Your task to perform on an android device: Clear the shopping cart on newegg.com. Image 0: 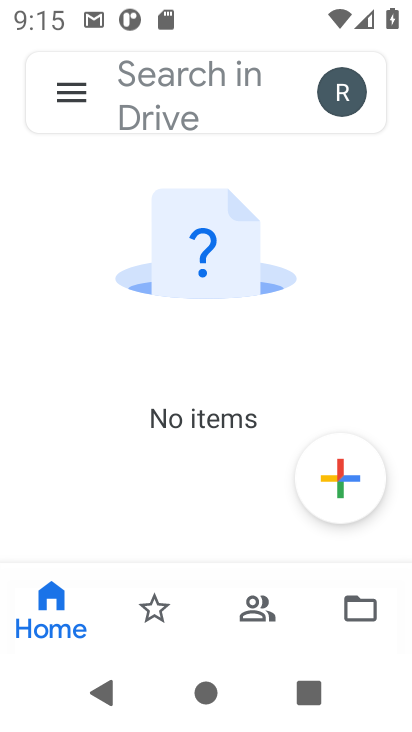
Step 0: press home button
Your task to perform on an android device: Clear the shopping cart on newegg.com. Image 1: 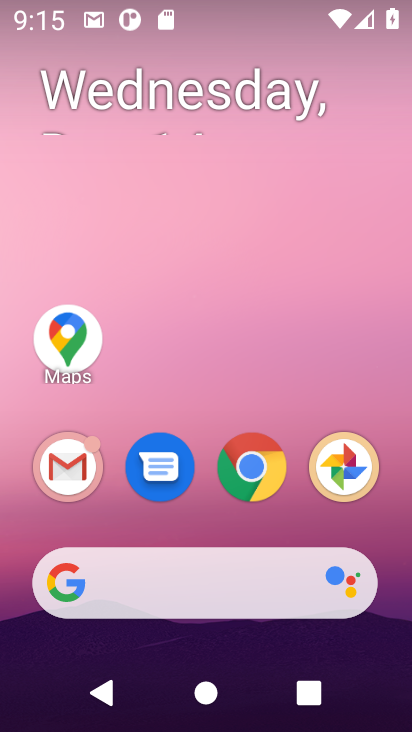
Step 1: click (249, 482)
Your task to perform on an android device: Clear the shopping cart on newegg.com. Image 2: 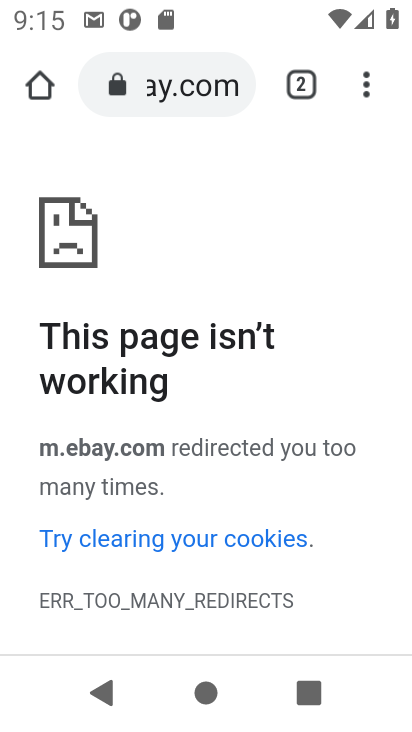
Step 2: click (221, 102)
Your task to perform on an android device: Clear the shopping cart on newegg.com. Image 3: 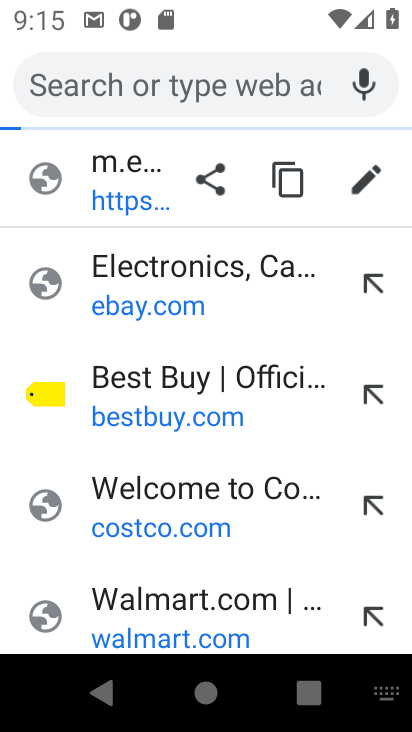
Step 3: type "neweegg"
Your task to perform on an android device: Clear the shopping cart on newegg.com. Image 4: 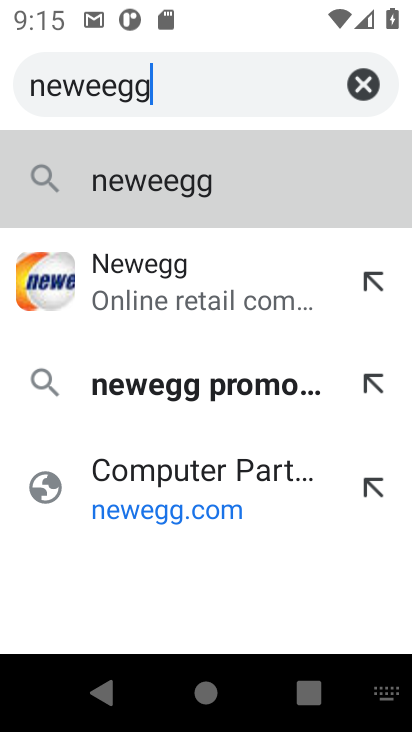
Step 4: click (199, 327)
Your task to perform on an android device: Clear the shopping cart on newegg.com. Image 5: 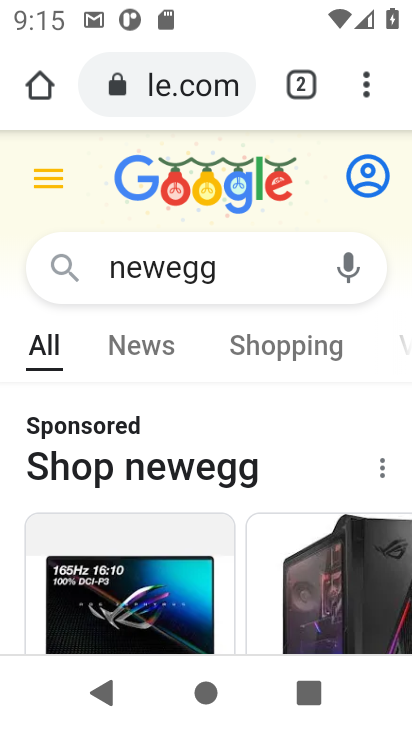
Step 5: drag from (213, 553) to (199, 270)
Your task to perform on an android device: Clear the shopping cart on newegg.com. Image 6: 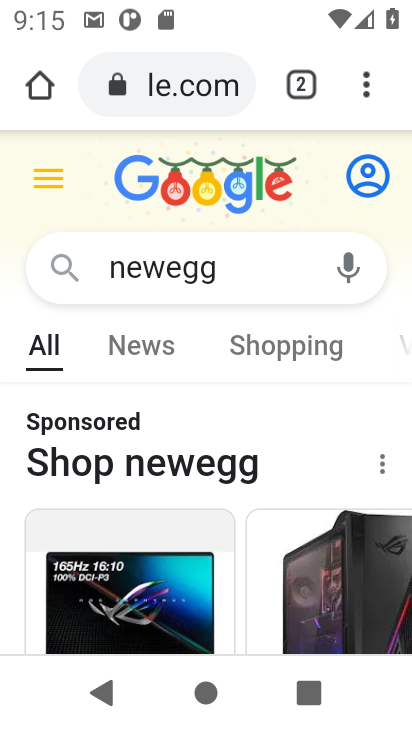
Step 6: drag from (234, 584) to (229, 142)
Your task to perform on an android device: Clear the shopping cart on newegg.com. Image 7: 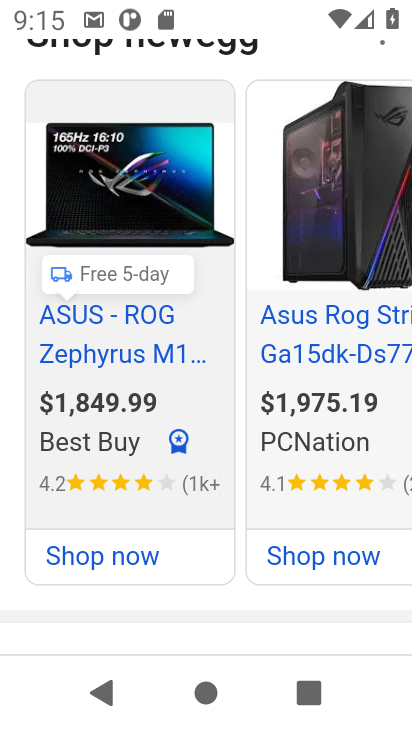
Step 7: drag from (236, 593) to (184, 134)
Your task to perform on an android device: Clear the shopping cart on newegg.com. Image 8: 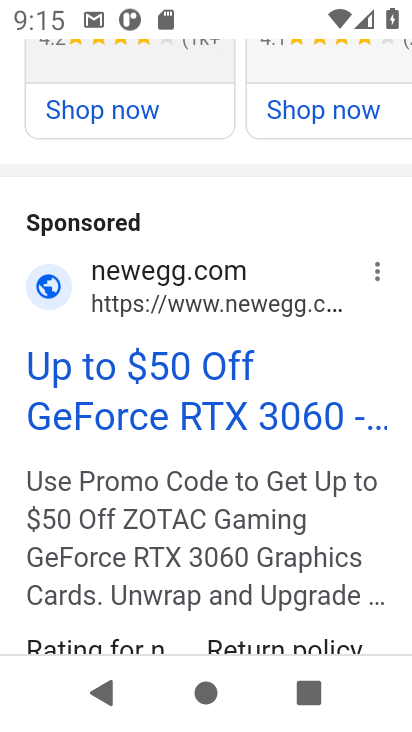
Step 8: click (192, 390)
Your task to perform on an android device: Clear the shopping cart on newegg.com. Image 9: 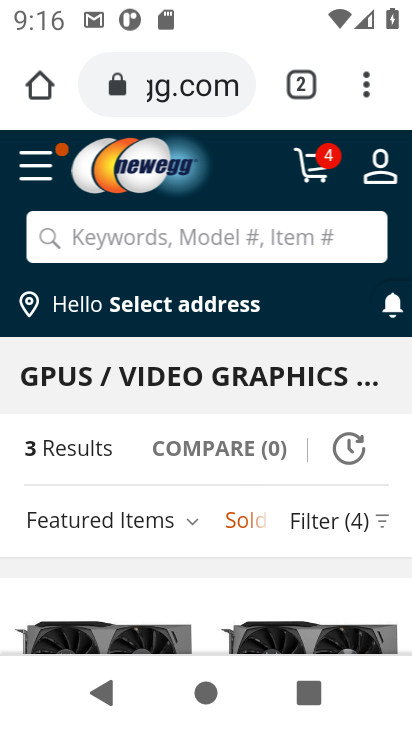
Step 9: task complete